Your task to perform on an android device: open app "Airtel Thanks" Image 0: 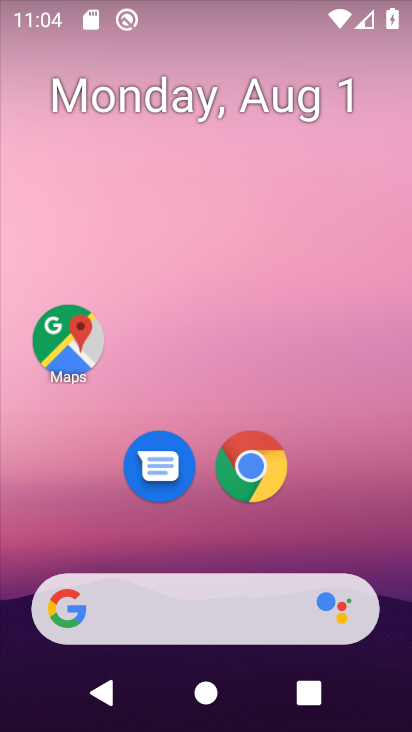
Step 0: drag from (235, 718) to (231, 23)
Your task to perform on an android device: open app "Airtel Thanks" Image 1: 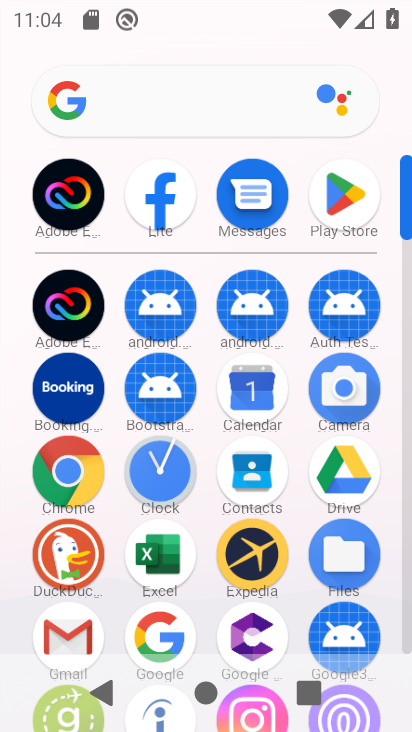
Step 1: click (351, 193)
Your task to perform on an android device: open app "Airtel Thanks" Image 2: 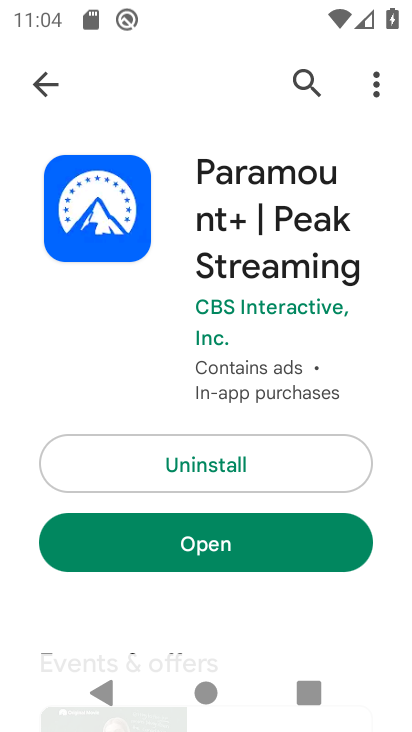
Step 2: click (308, 80)
Your task to perform on an android device: open app "Airtel Thanks" Image 3: 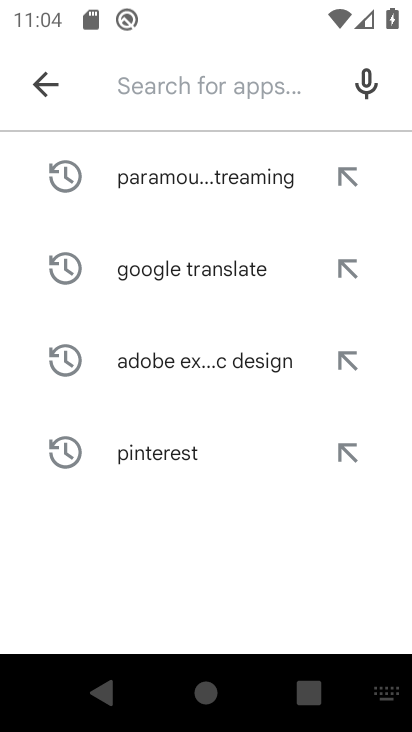
Step 3: type "Airtel Thanks"
Your task to perform on an android device: open app "Airtel Thanks" Image 4: 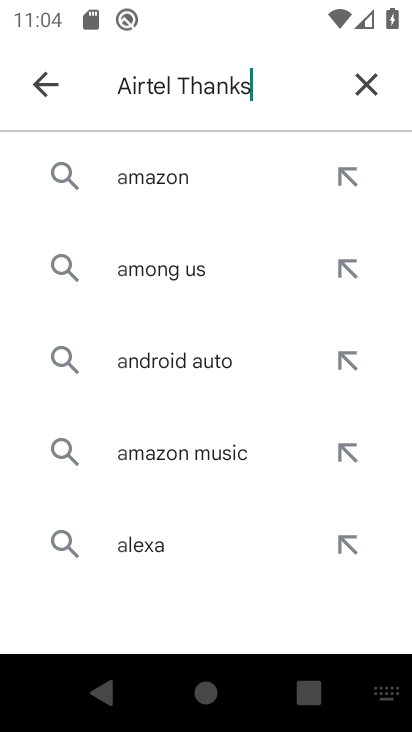
Step 4: type ""
Your task to perform on an android device: open app "Airtel Thanks" Image 5: 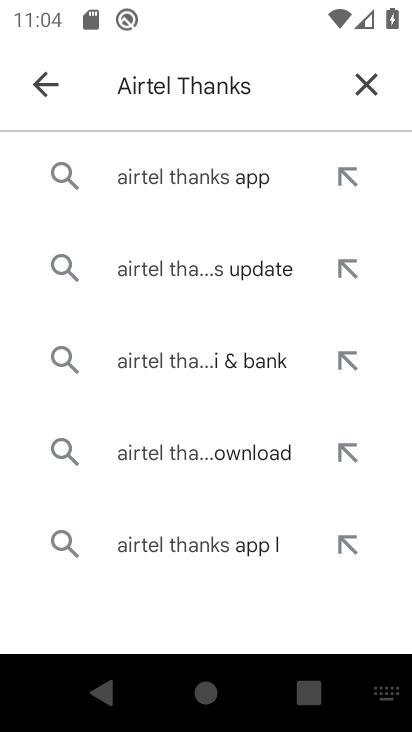
Step 5: click (192, 178)
Your task to perform on an android device: open app "Airtel Thanks" Image 6: 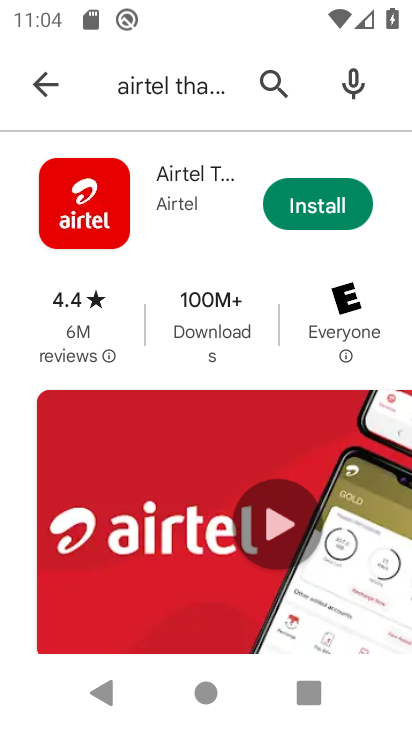
Step 6: click (331, 204)
Your task to perform on an android device: open app "Airtel Thanks" Image 7: 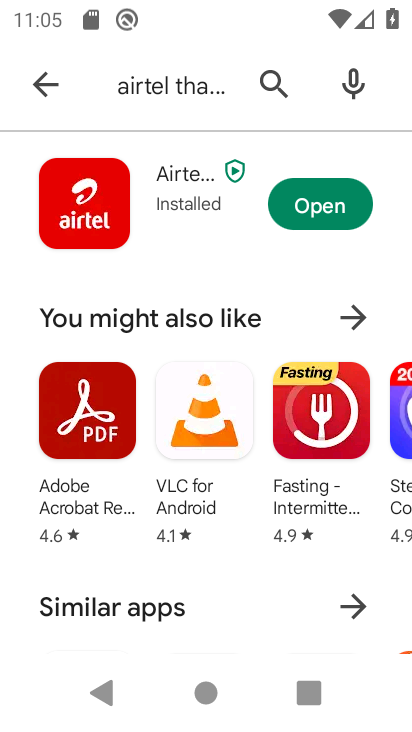
Step 7: click (325, 204)
Your task to perform on an android device: open app "Airtel Thanks" Image 8: 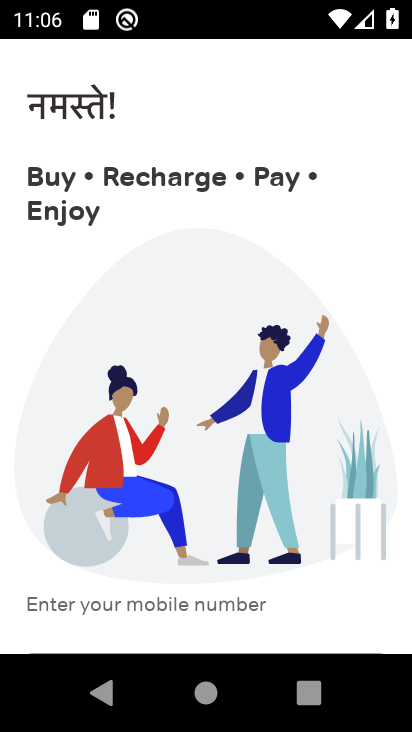
Step 8: task complete